Your task to perform on an android device: Open calendar and show me the second week of next month Image 0: 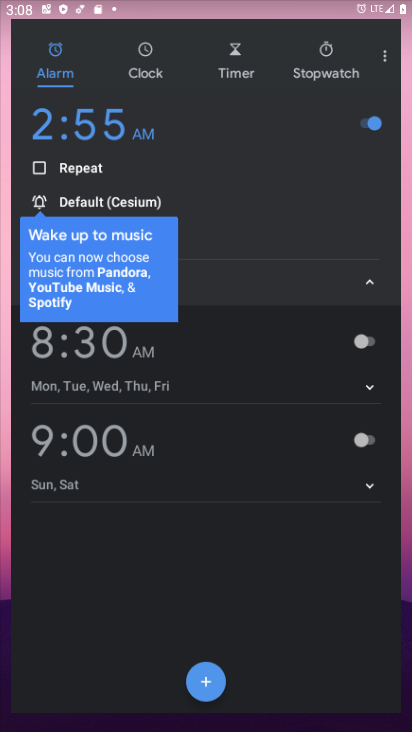
Step 0: drag from (257, 665) to (318, 291)
Your task to perform on an android device: Open calendar and show me the second week of next month Image 1: 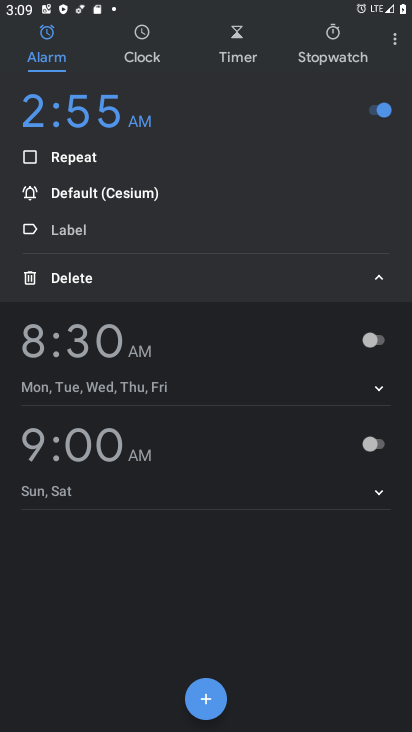
Step 1: press home button
Your task to perform on an android device: Open calendar and show me the second week of next month Image 2: 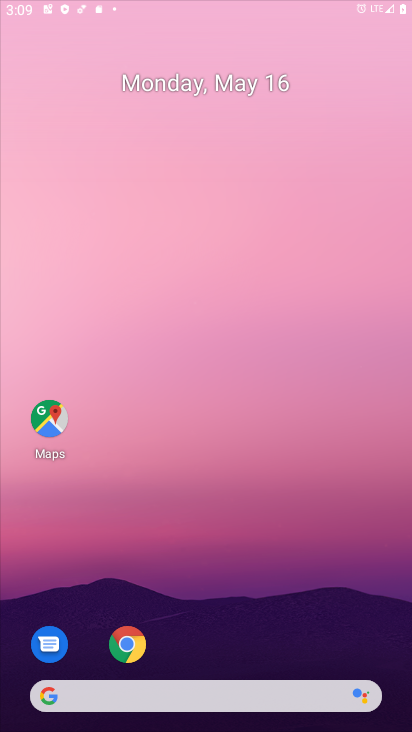
Step 2: drag from (245, 501) to (292, 94)
Your task to perform on an android device: Open calendar and show me the second week of next month Image 3: 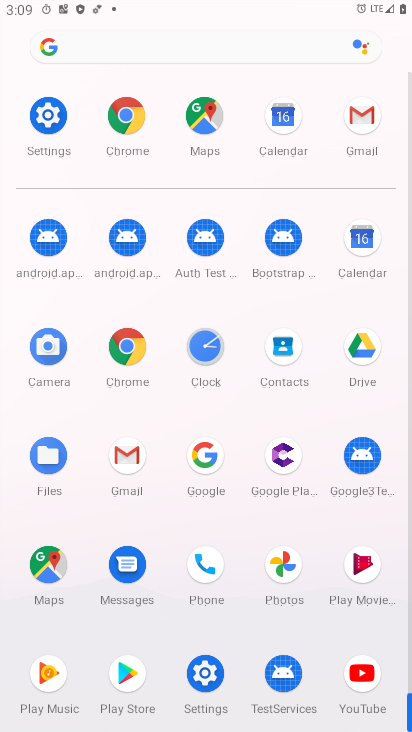
Step 3: click (366, 244)
Your task to perform on an android device: Open calendar and show me the second week of next month Image 4: 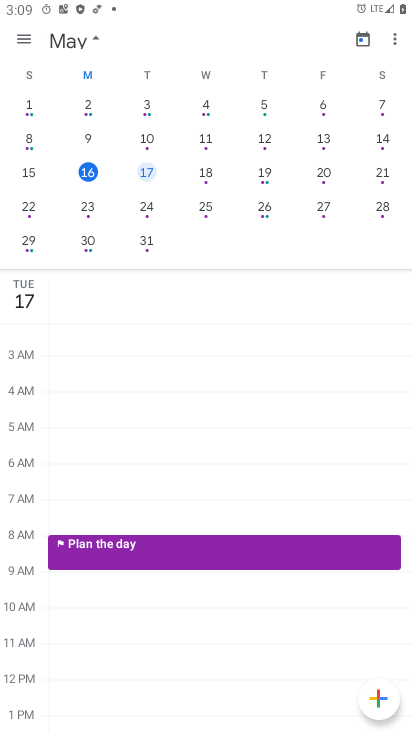
Step 4: drag from (263, 195) to (11, 189)
Your task to perform on an android device: Open calendar and show me the second week of next month Image 5: 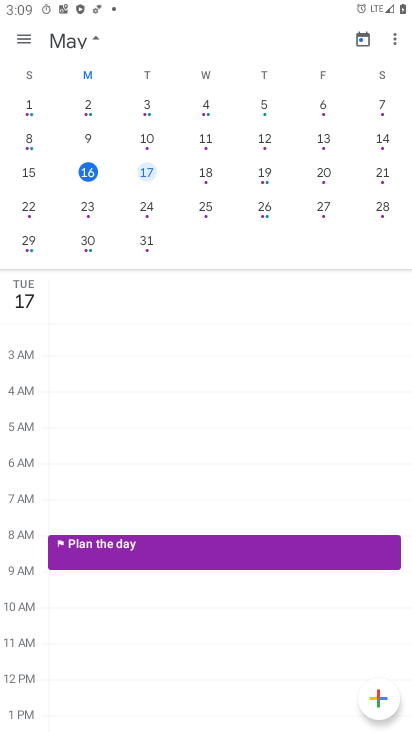
Step 5: drag from (334, 181) to (6, 184)
Your task to perform on an android device: Open calendar and show me the second week of next month Image 6: 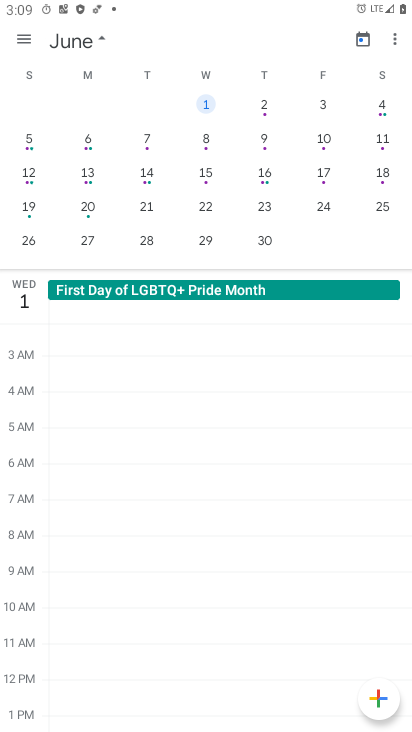
Step 6: click (36, 174)
Your task to perform on an android device: Open calendar and show me the second week of next month Image 7: 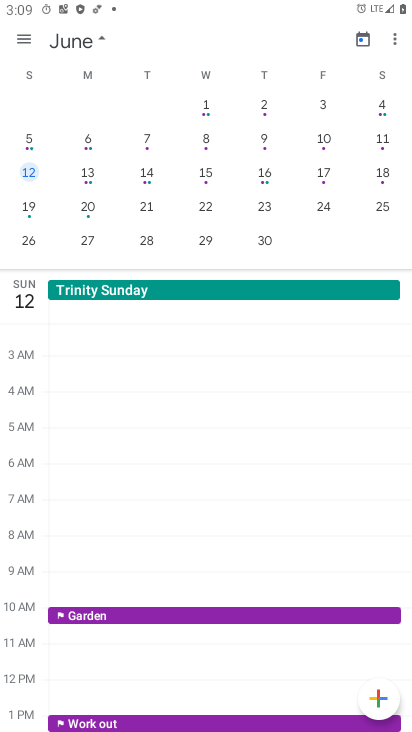
Step 7: task complete